Your task to perform on an android device: What's the weather going to be this weekend? Image 0: 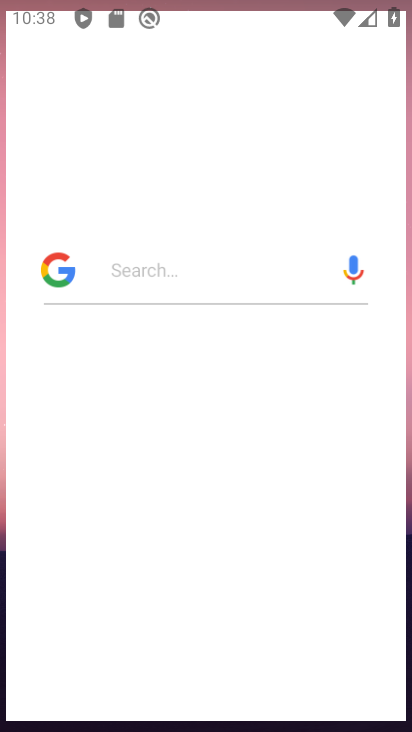
Step 0: drag from (256, 632) to (254, 144)
Your task to perform on an android device: What's the weather going to be this weekend? Image 1: 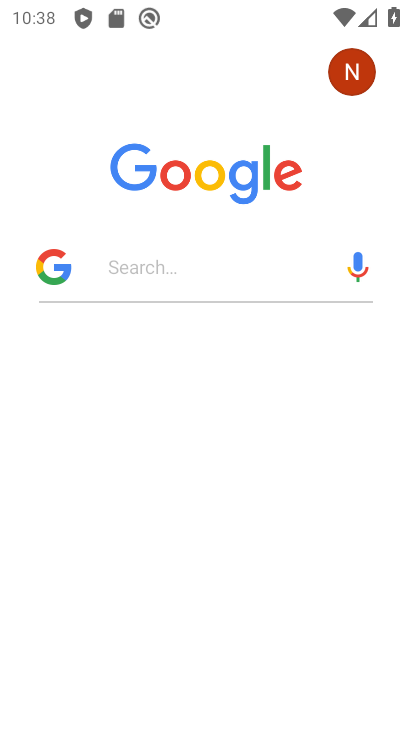
Step 1: press home button
Your task to perform on an android device: What's the weather going to be this weekend? Image 2: 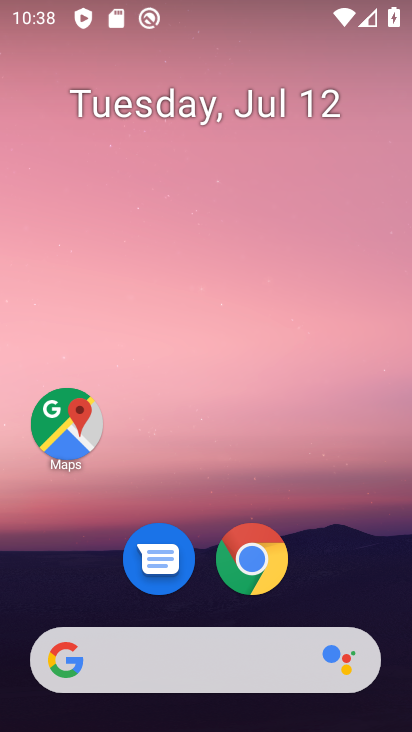
Step 2: drag from (304, 559) to (304, 226)
Your task to perform on an android device: What's the weather going to be this weekend? Image 3: 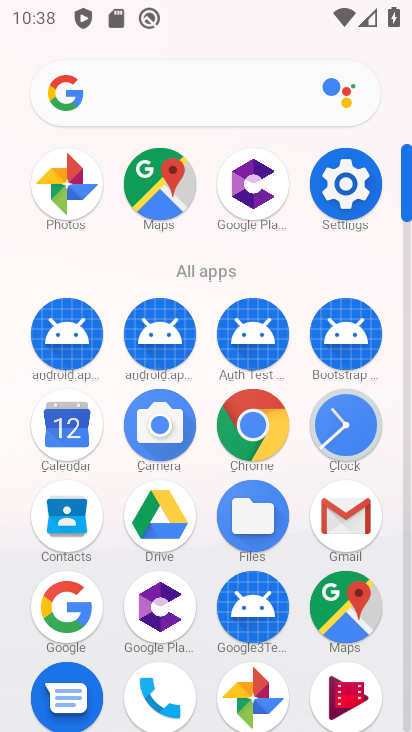
Step 3: drag from (256, 531) to (289, 95)
Your task to perform on an android device: What's the weather going to be this weekend? Image 4: 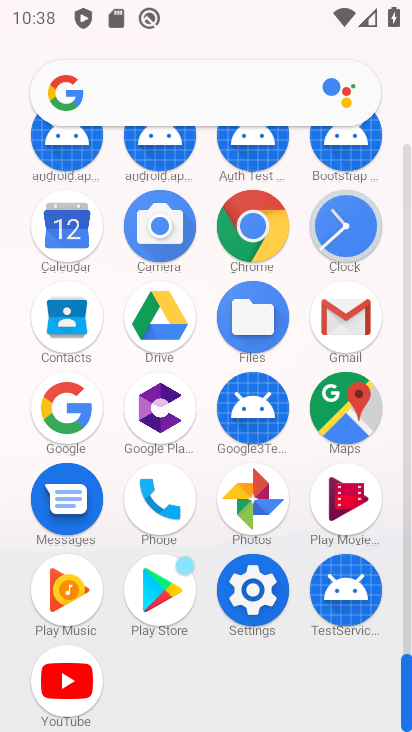
Step 4: click (86, 415)
Your task to perform on an android device: What's the weather going to be this weekend? Image 5: 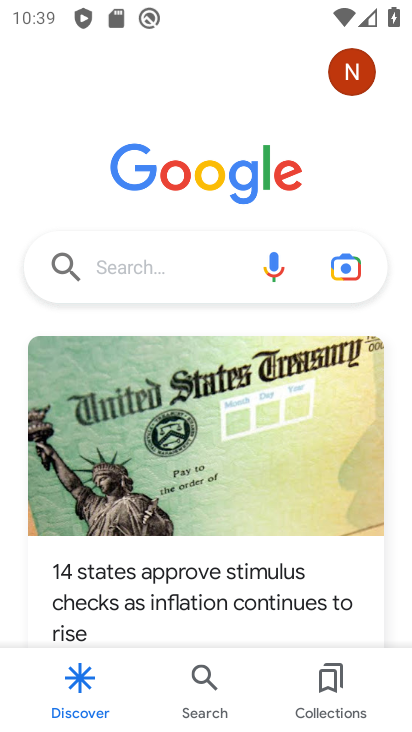
Step 5: click (182, 271)
Your task to perform on an android device: What's the weather going to be this weekend? Image 6: 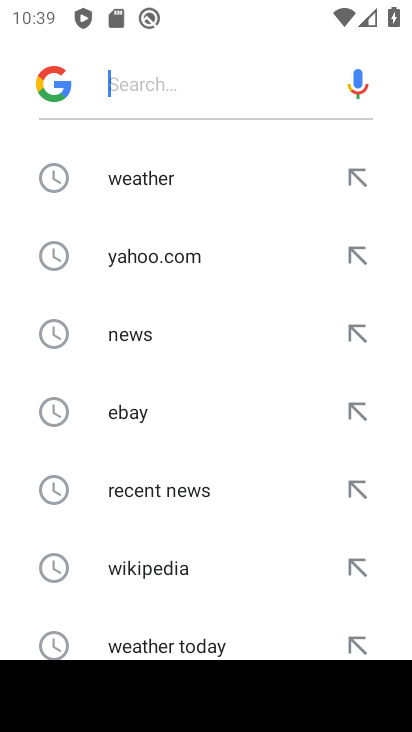
Step 6: click (344, 185)
Your task to perform on an android device: What's the weather going to be this weekend? Image 7: 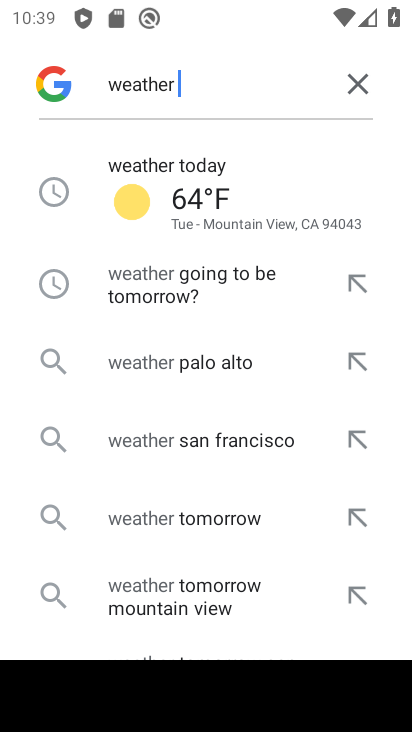
Step 7: type " weekend"
Your task to perform on an android device: What's the weather going to be this weekend? Image 8: 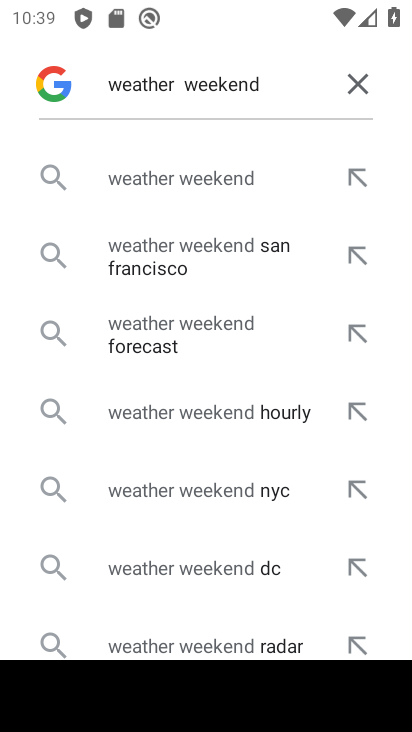
Step 8: click (254, 175)
Your task to perform on an android device: What's the weather going to be this weekend? Image 9: 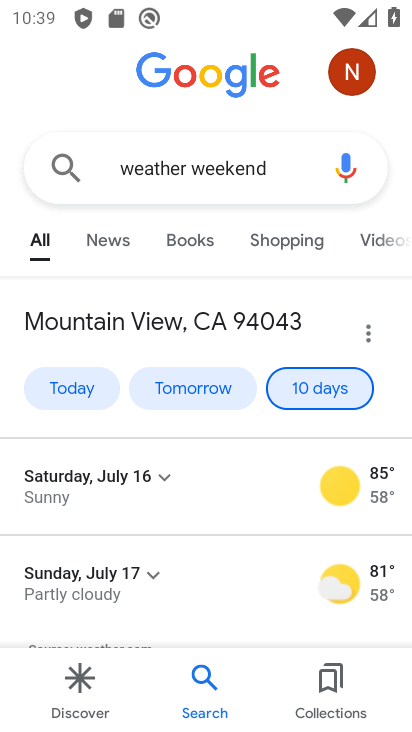
Step 9: task complete